Your task to perform on an android device: Open Google Maps Image 0: 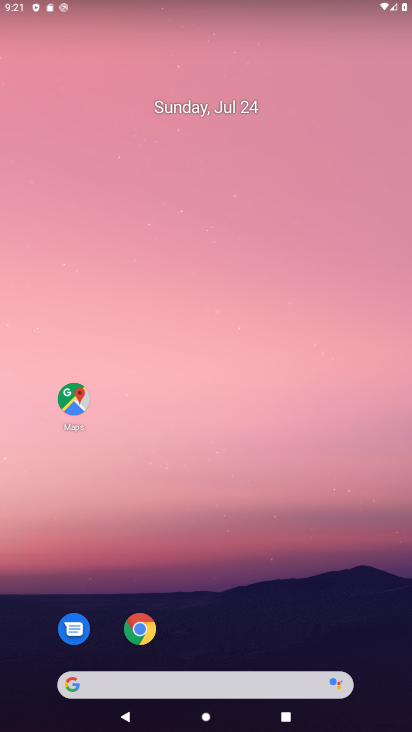
Step 0: click (89, 416)
Your task to perform on an android device: Open Google Maps Image 1: 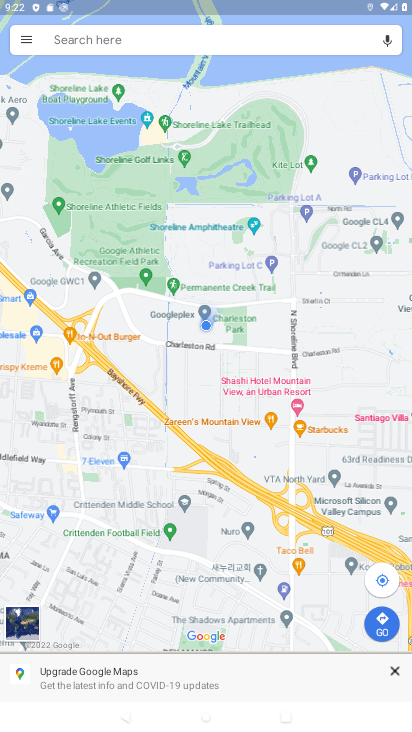
Step 1: task complete